Your task to perform on an android device: Open Google Chrome Image 0: 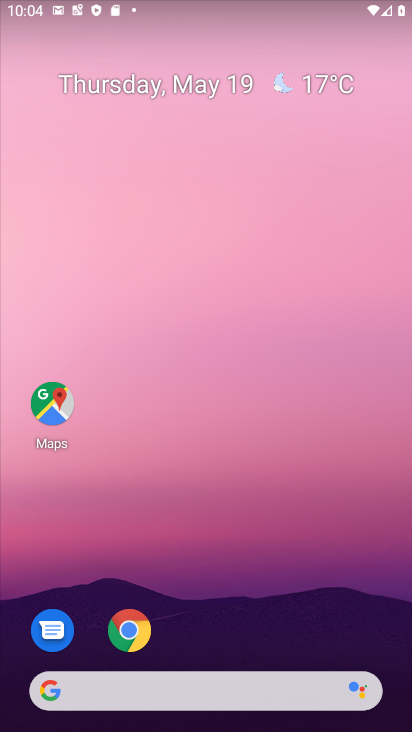
Step 0: click (134, 635)
Your task to perform on an android device: Open Google Chrome Image 1: 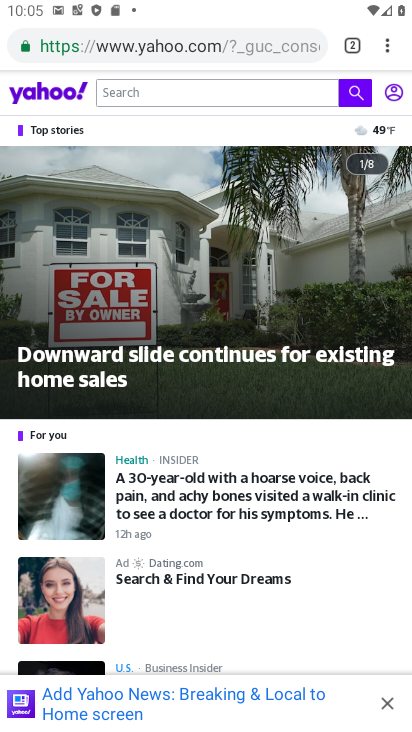
Step 1: task complete